Your task to perform on an android device: delete browsing data in the chrome app Image 0: 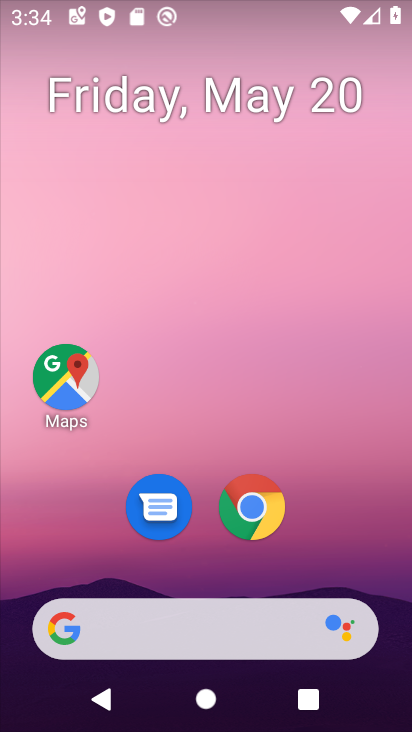
Step 0: click (252, 506)
Your task to perform on an android device: delete browsing data in the chrome app Image 1: 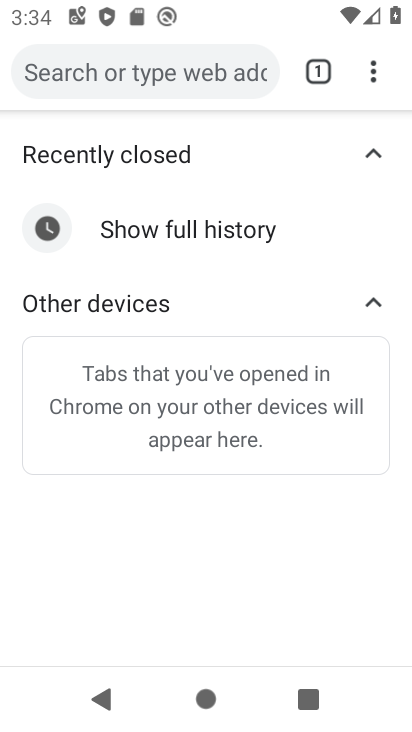
Step 1: click (375, 70)
Your task to perform on an android device: delete browsing data in the chrome app Image 2: 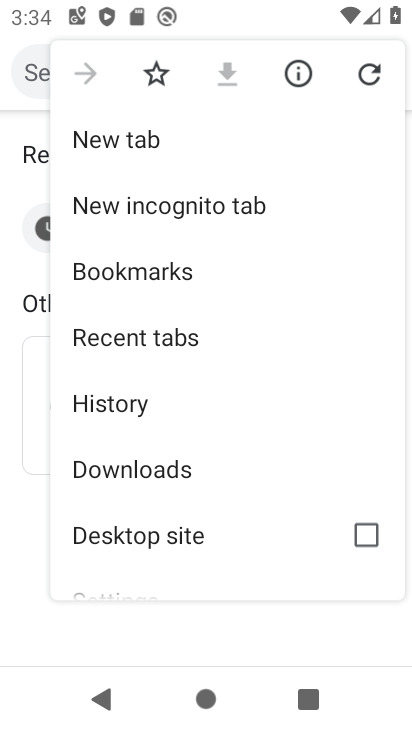
Step 2: drag from (218, 492) to (204, 370)
Your task to perform on an android device: delete browsing data in the chrome app Image 3: 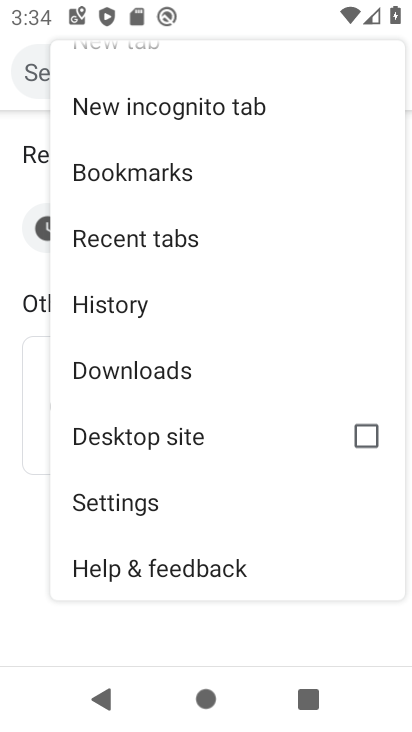
Step 3: click (115, 498)
Your task to perform on an android device: delete browsing data in the chrome app Image 4: 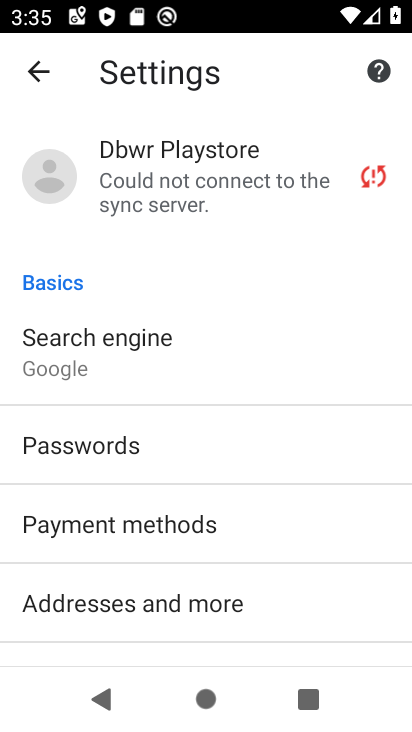
Step 4: drag from (130, 558) to (194, 393)
Your task to perform on an android device: delete browsing data in the chrome app Image 5: 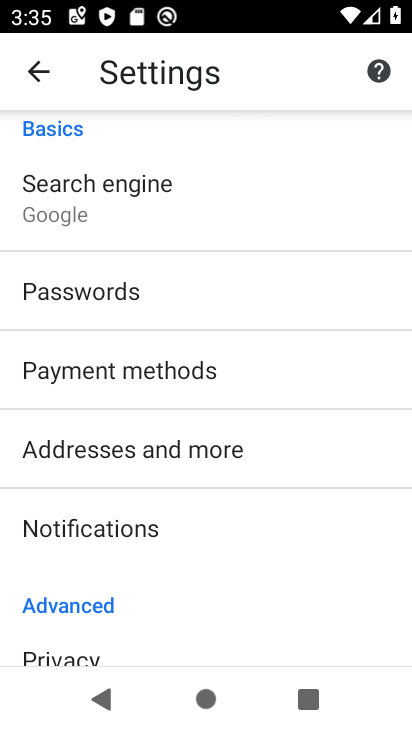
Step 5: drag from (154, 547) to (246, 415)
Your task to perform on an android device: delete browsing data in the chrome app Image 6: 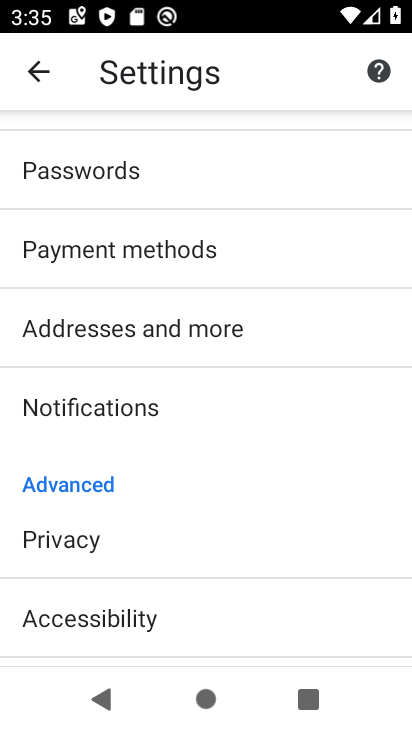
Step 6: click (90, 535)
Your task to perform on an android device: delete browsing data in the chrome app Image 7: 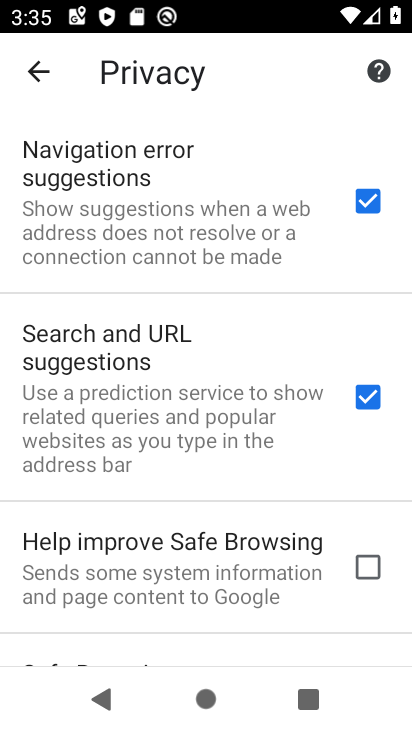
Step 7: drag from (171, 588) to (198, 419)
Your task to perform on an android device: delete browsing data in the chrome app Image 8: 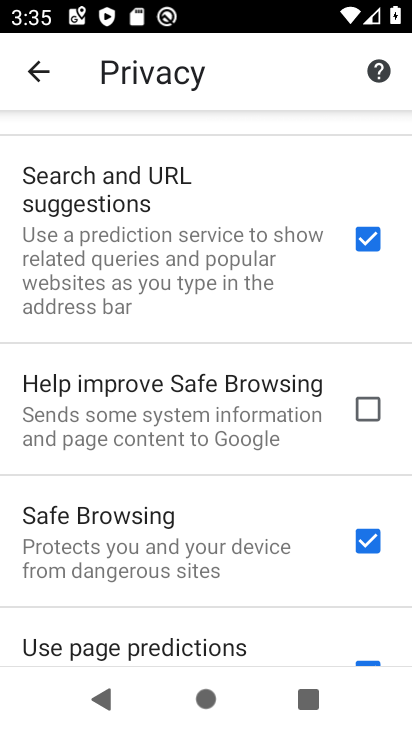
Step 8: drag from (186, 514) to (240, 394)
Your task to perform on an android device: delete browsing data in the chrome app Image 9: 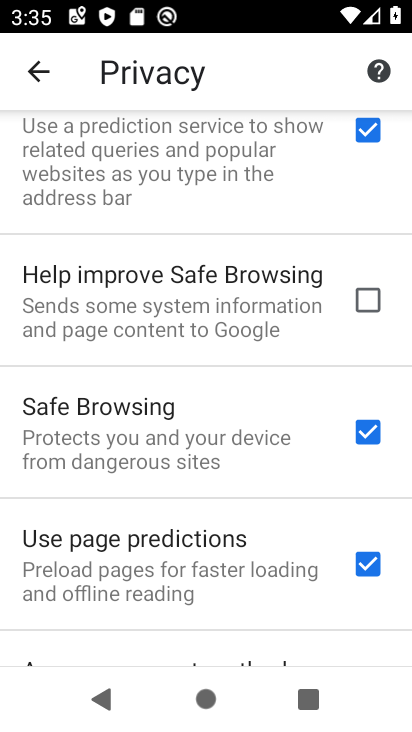
Step 9: drag from (119, 573) to (167, 389)
Your task to perform on an android device: delete browsing data in the chrome app Image 10: 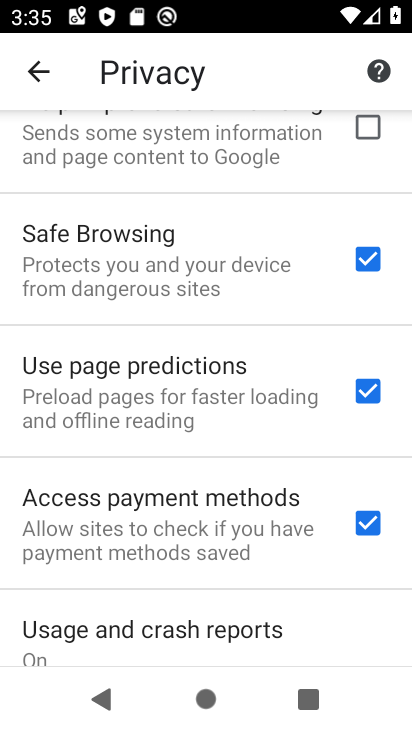
Step 10: click (176, 443)
Your task to perform on an android device: delete browsing data in the chrome app Image 11: 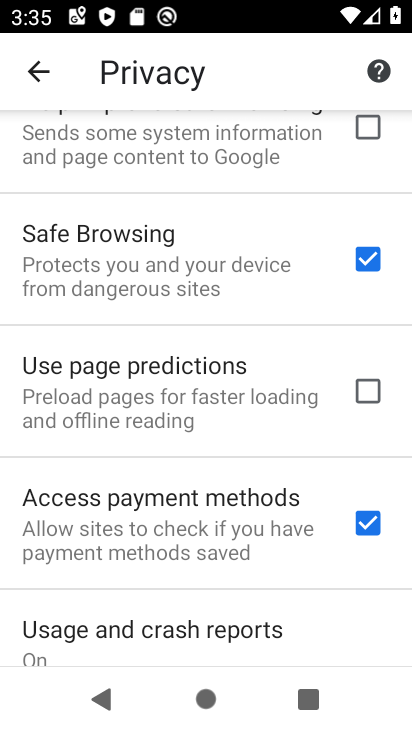
Step 11: drag from (147, 572) to (225, 337)
Your task to perform on an android device: delete browsing data in the chrome app Image 12: 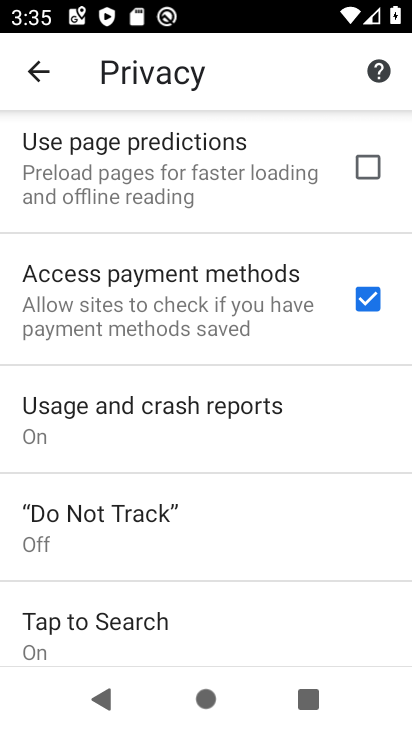
Step 12: drag from (146, 558) to (230, 341)
Your task to perform on an android device: delete browsing data in the chrome app Image 13: 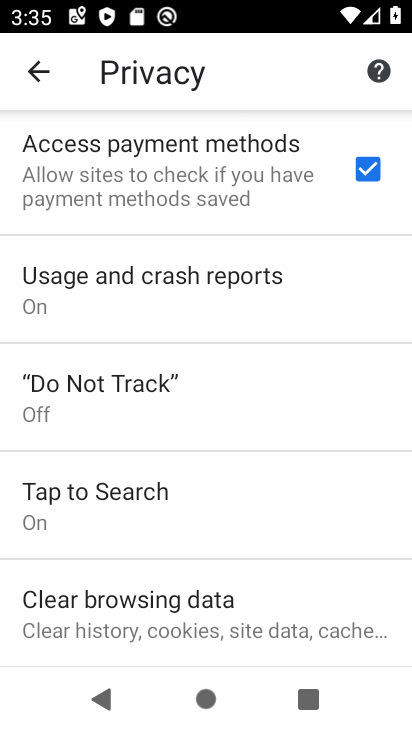
Step 13: click (137, 599)
Your task to perform on an android device: delete browsing data in the chrome app Image 14: 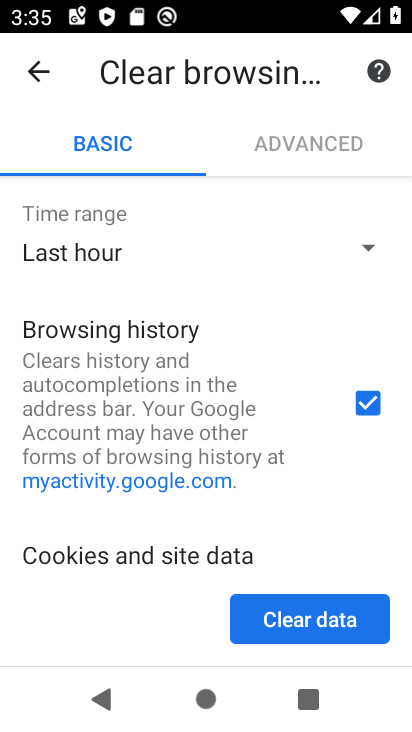
Step 14: click (307, 625)
Your task to perform on an android device: delete browsing data in the chrome app Image 15: 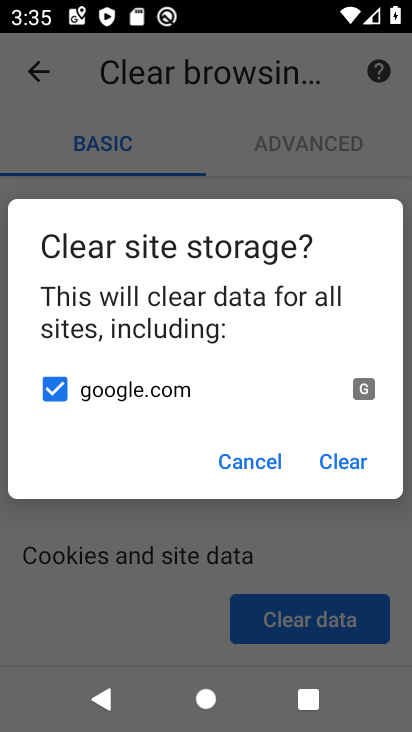
Step 15: click (355, 468)
Your task to perform on an android device: delete browsing data in the chrome app Image 16: 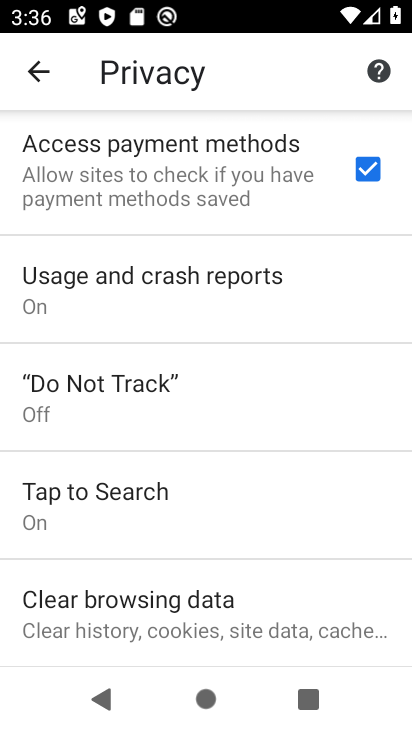
Step 16: task complete